Your task to perform on an android device: Open the phone app and click the voicemail tab. Image 0: 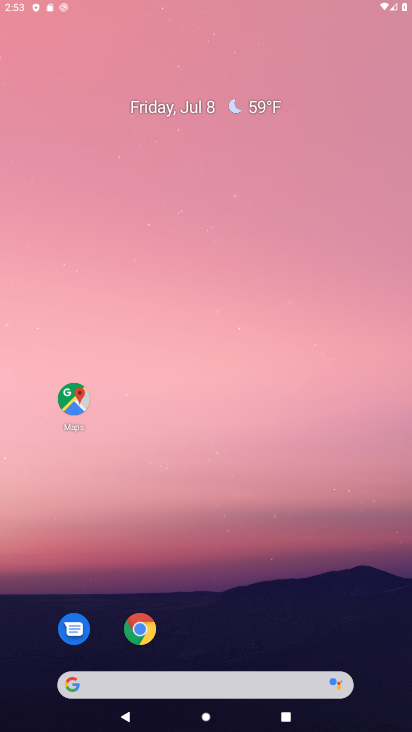
Step 0: press home button
Your task to perform on an android device: Open the phone app and click the voicemail tab. Image 1: 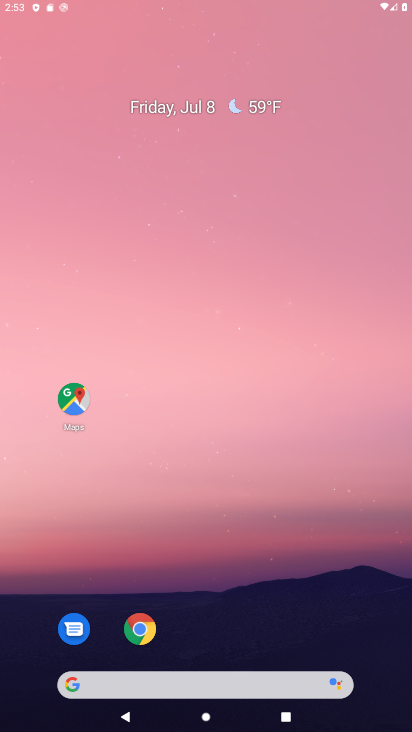
Step 1: click (72, 396)
Your task to perform on an android device: Open the phone app and click the voicemail tab. Image 2: 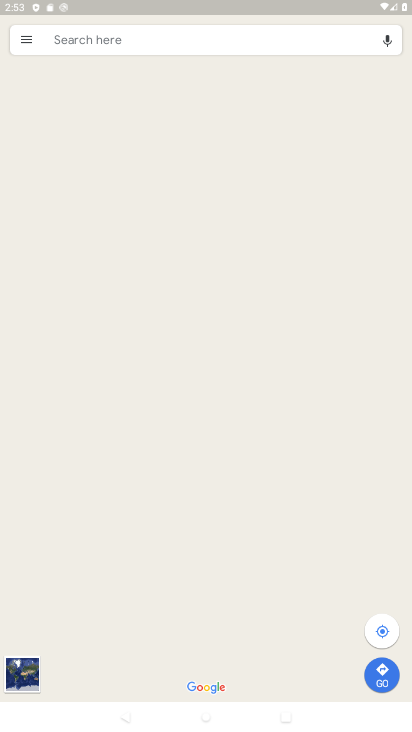
Step 2: press home button
Your task to perform on an android device: Open the phone app and click the voicemail tab. Image 3: 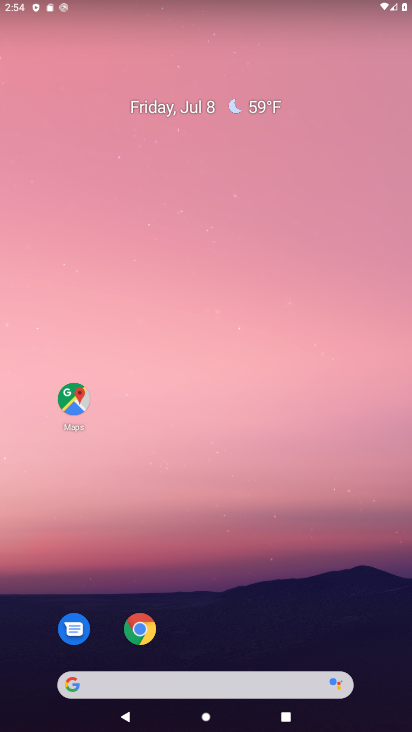
Step 3: drag from (226, 627) to (255, 162)
Your task to perform on an android device: Open the phone app and click the voicemail tab. Image 4: 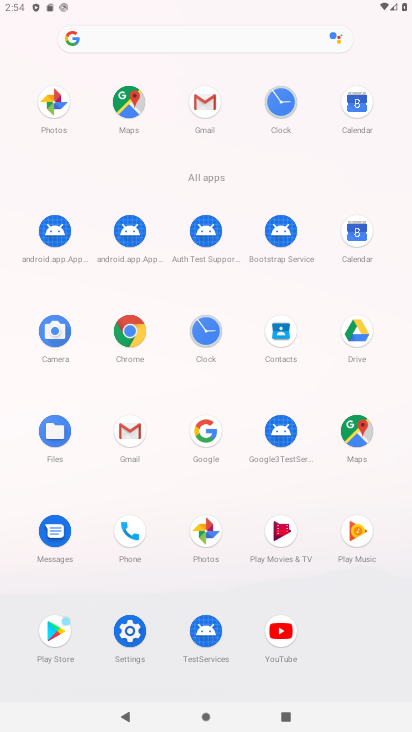
Step 4: click (129, 522)
Your task to perform on an android device: Open the phone app and click the voicemail tab. Image 5: 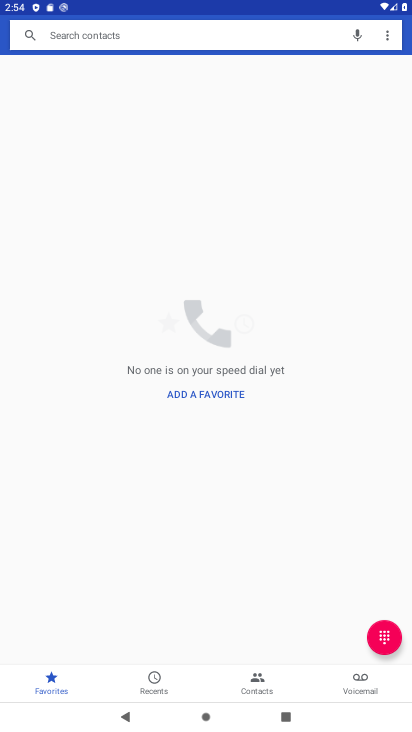
Step 5: click (359, 676)
Your task to perform on an android device: Open the phone app and click the voicemail tab. Image 6: 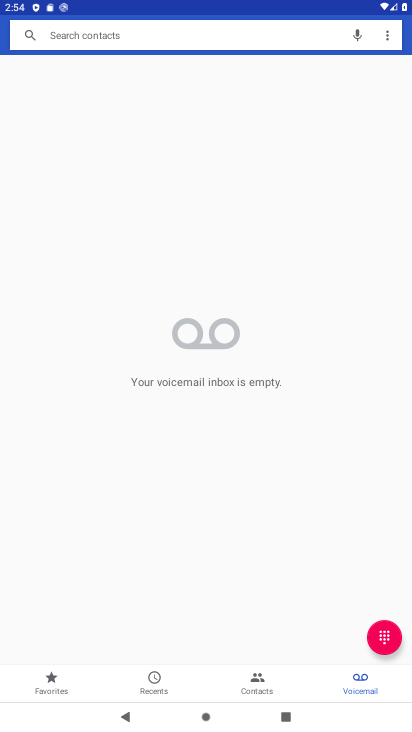
Step 6: task complete